Your task to perform on an android device: What's the weather? Image 0: 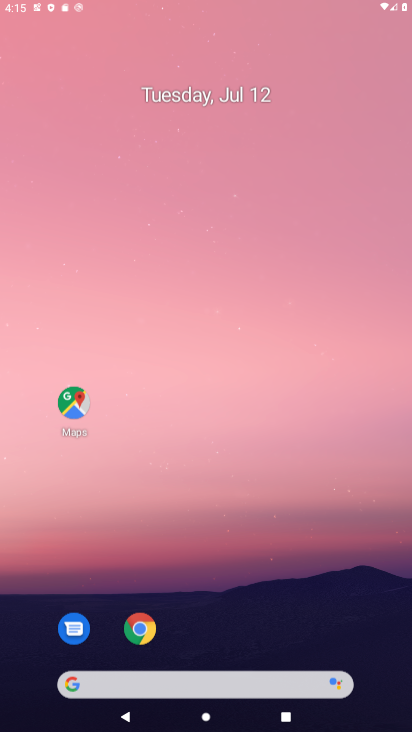
Step 0: press home button
Your task to perform on an android device: What's the weather? Image 1: 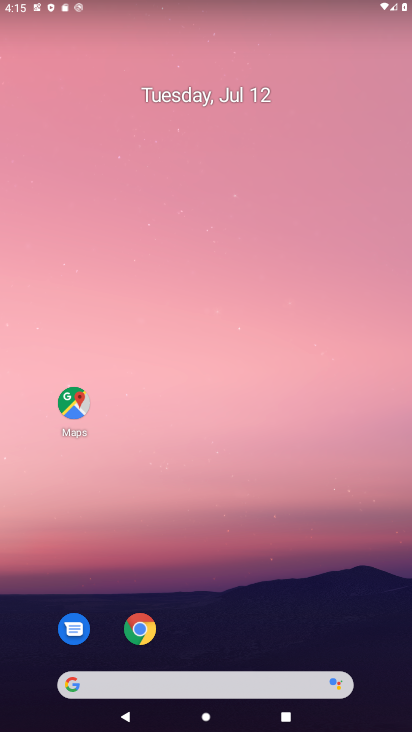
Step 1: click (66, 688)
Your task to perform on an android device: What's the weather? Image 2: 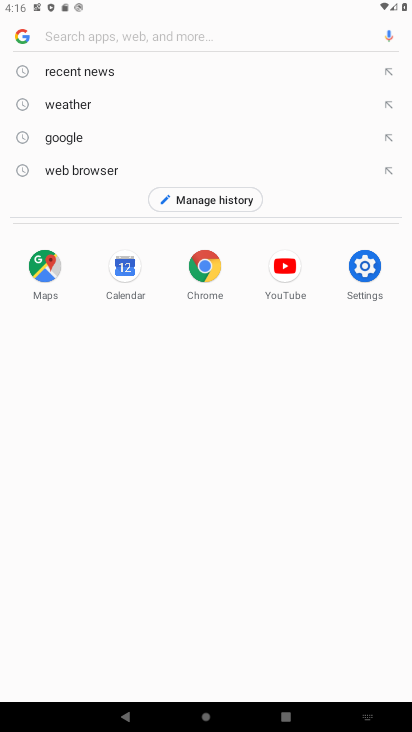
Step 2: click (68, 106)
Your task to perform on an android device: What's the weather? Image 3: 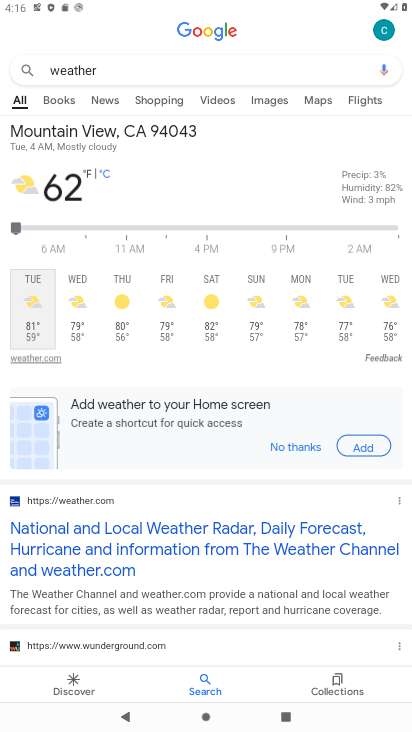
Step 3: task complete